Your task to perform on an android device: turn pop-ups on in chrome Image 0: 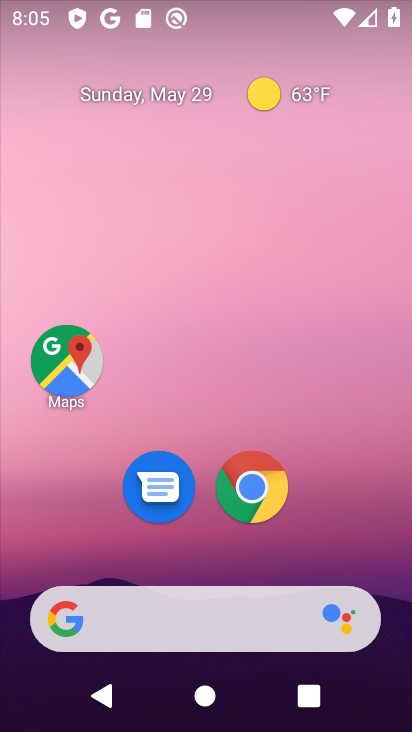
Step 0: click (251, 491)
Your task to perform on an android device: turn pop-ups on in chrome Image 1: 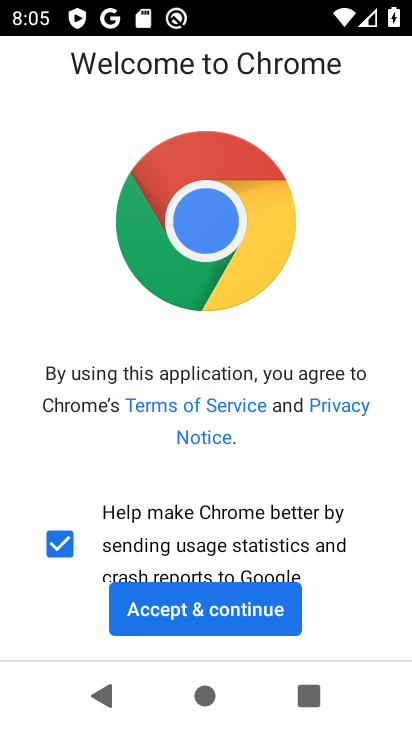
Step 1: click (207, 612)
Your task to perform on an android device: turn pop-ups on in chrome Image 2: 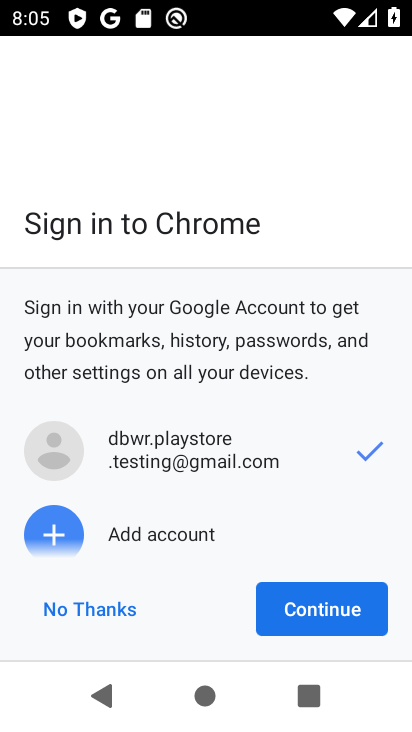
Step 2: click (316, 606)
Your task to perform on an android device: turn pop-ups on in chrome Image 3: 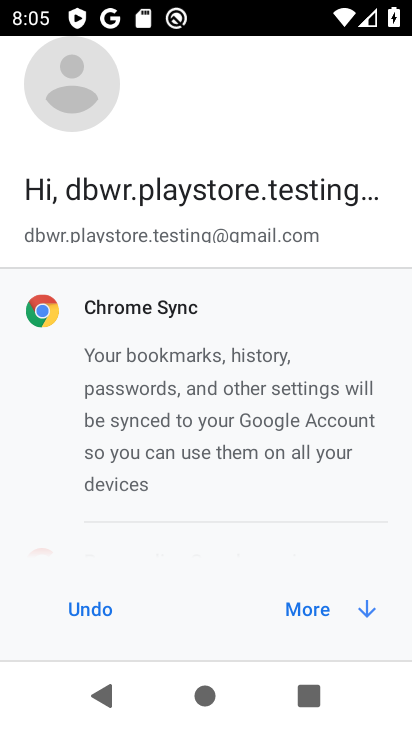
Step 3: click (316, 606)
Your task to perform on an android device: turn pop-ups on in chrome Image 4: 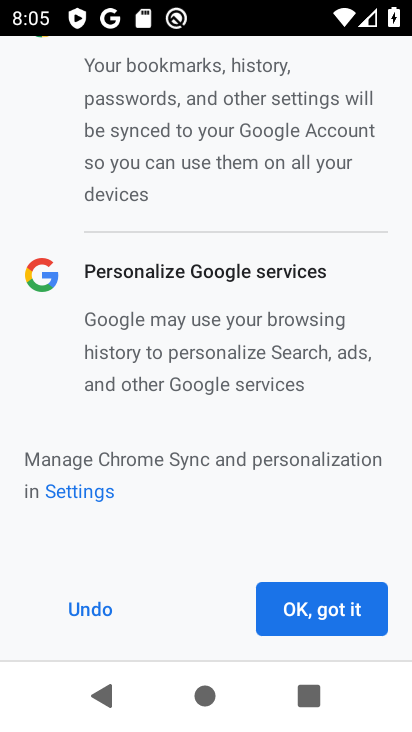
Step 4: click (316, 606)
Your task to perform on an android device: turn pop-ups on in chrome Image 5: 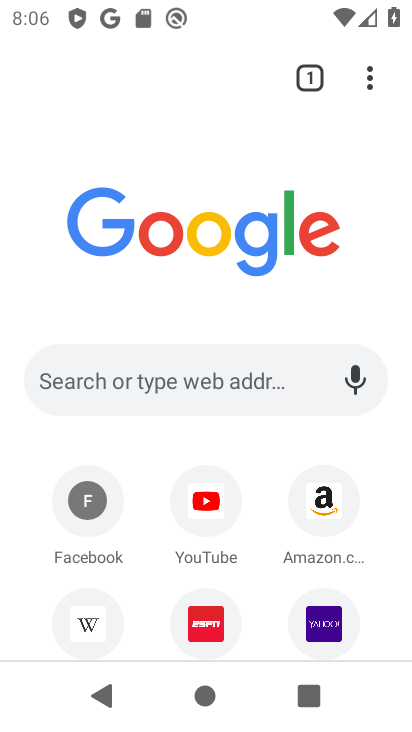
Step 5: click (372, 77)
Your task to perform on an android device: turn pop-ups on in chrome Image 6: 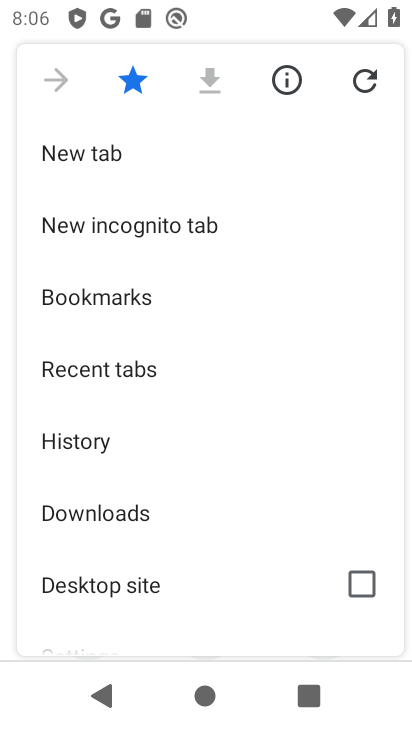
Step 6: drag from (150, 536) to (205, 431)
Your task to perform on an android device: turn pop-ups on in chrome Image 7: 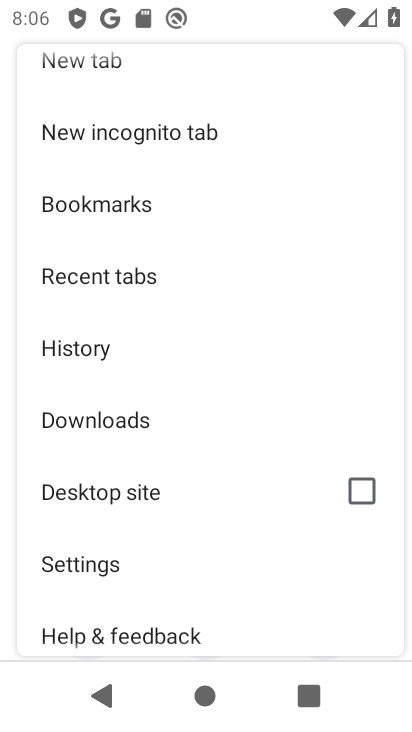
Step 7: click (95, 565)
Your task to perform on an android device: turn pop-ups on in chrome Image 8: 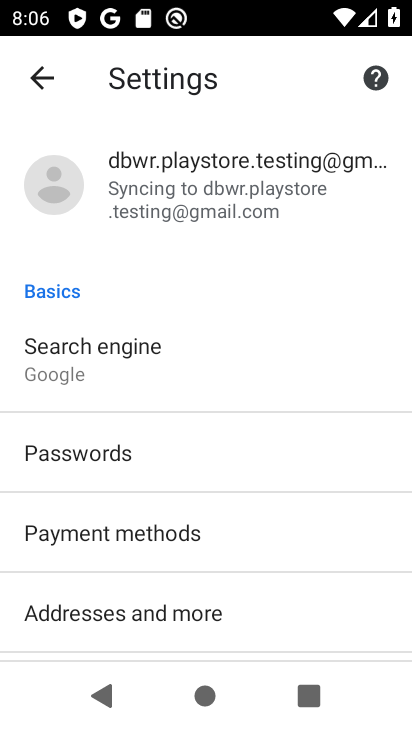
Step 8: drag from (126, 548) to (159, 454)
Your task to perform on an android device: turn pop-ups on in chrome Image 9: 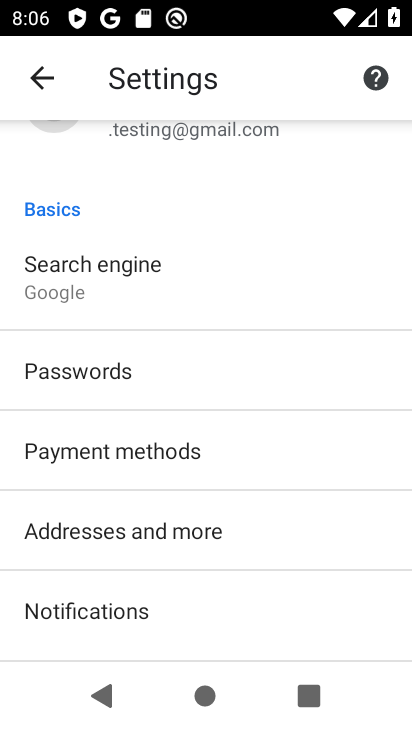
Step 9: drag from (152, 554) to (201, 468)
Your task to perform on an android device: turn pop-ups on in chrome Image 10: 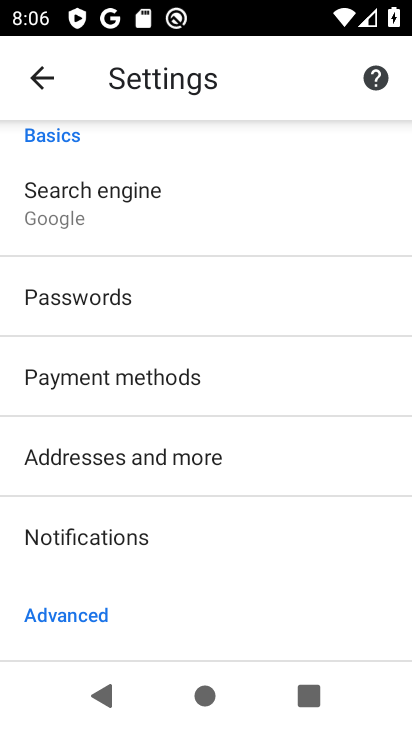
Step 10: drag from (125, 577) to (204, 451)
Your task to perform on an android device: turn pop-ups on in chrome Image 11: 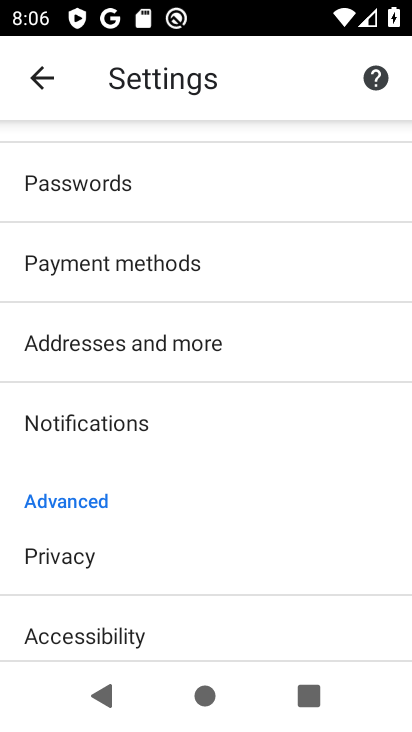
Step 11: drag from (130, 581) to (206, 484)
Your task to perform on an android device: turn pop-ups on in chrome Image 12: 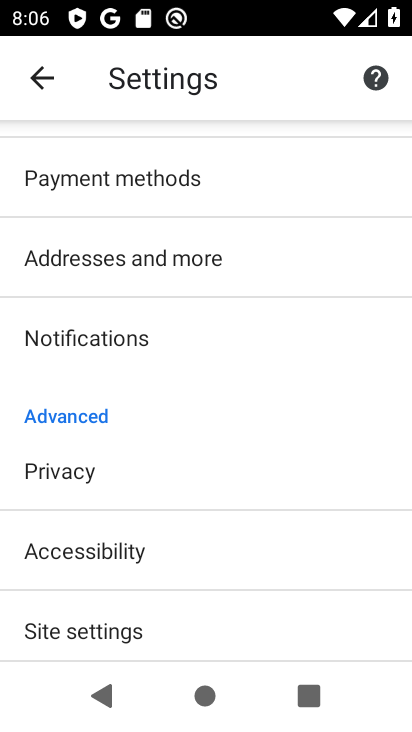
Step 12: drag from (110, 613) to (202, 521)
Your task to perform on an android device: turn pop-ups on in chrome Image 13: 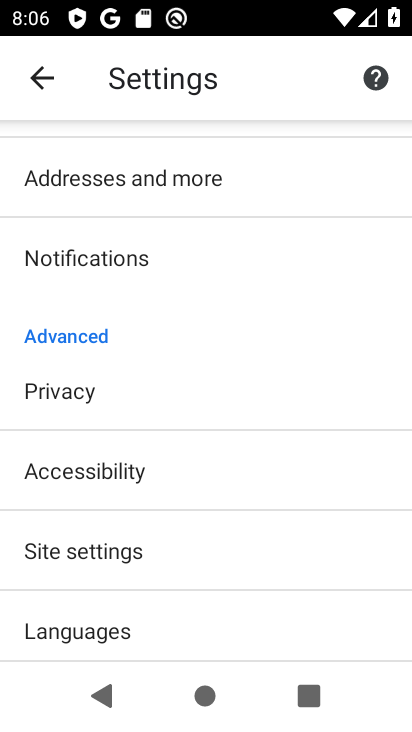
Step 13: click (118, 552)
Your task to perform on an android device: turn pop-ups on in chrome Image 14: 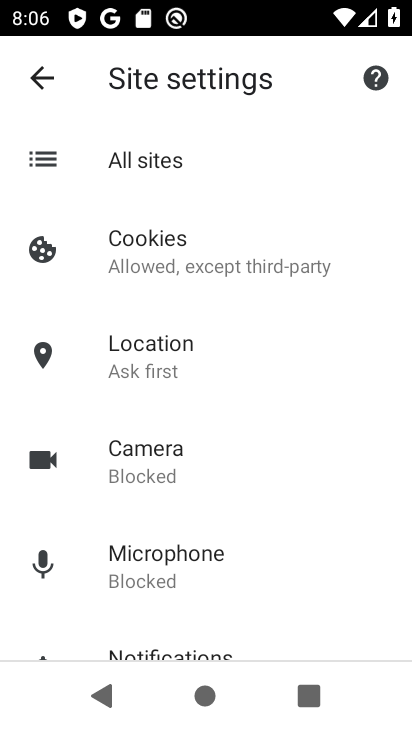
Step 14: drag from (168, 402) to (245, 285)
Your task to perform on an android device: turn pop-ups on in chrome Image 15: 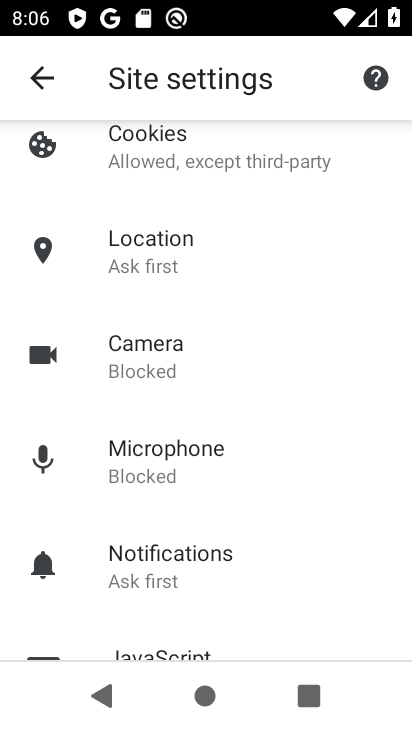
Step 15: drag from (144, 423) to (202, 326)
Your task to perform on an android device: turn pop-ups on in chrome Image 16: 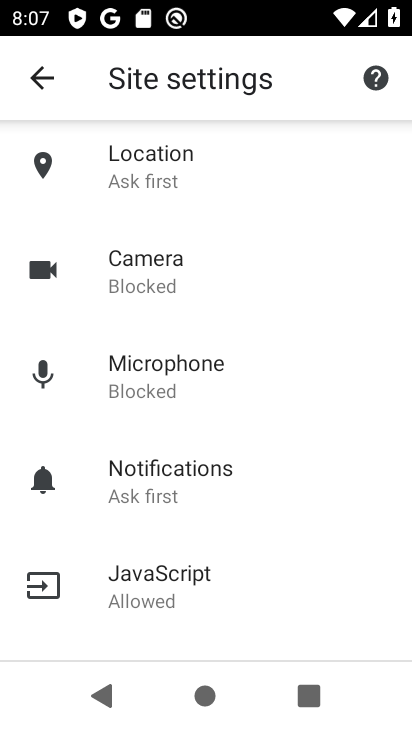
Step 16: drag from (140, 429) to (199, 330)
Your task to perform on an android device: turn pop-ups on in chrome Image 17: 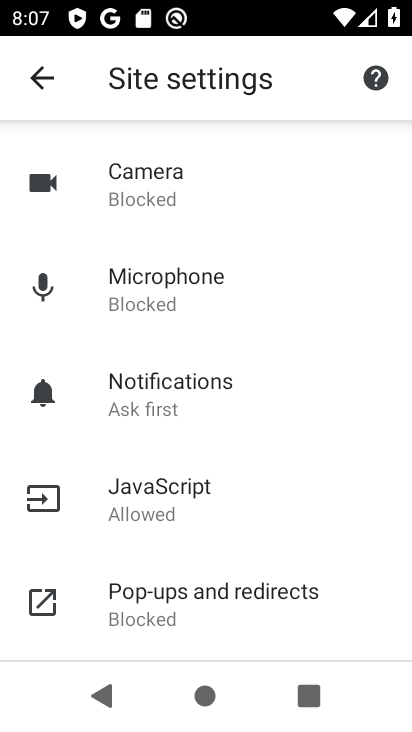
Step 17: drag from (161, 419) to (203, 339)
Your task to perform on an android device: turn pop-ups on in chrome Image 18: 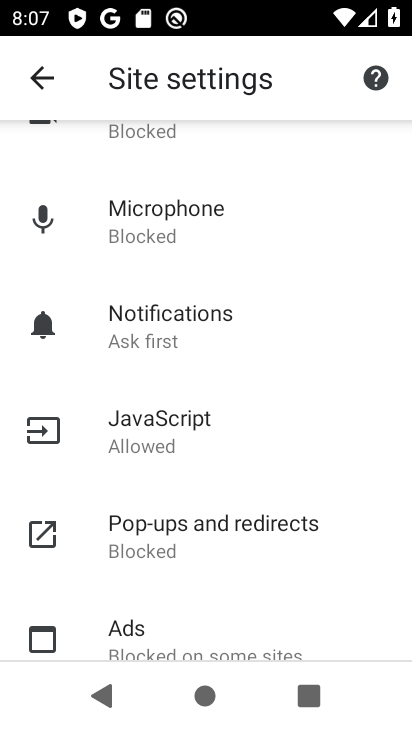
Step 18: drag from (132, 486) to (197, 360)
Your task to perform on an android device: turn pop-ups on in chrome Image 19: 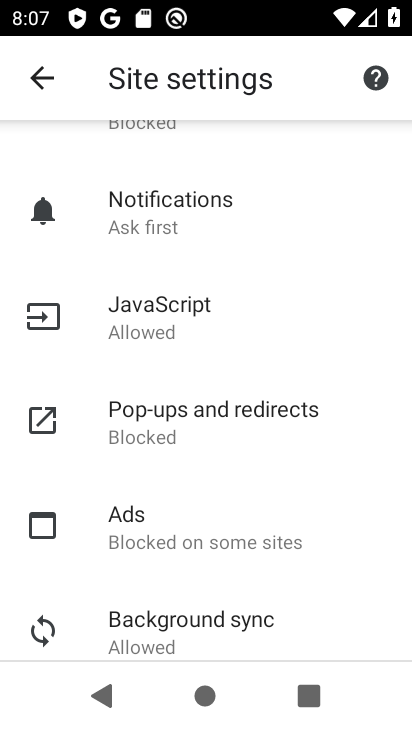
Step 19: drag from (158, 490) to (218, 371)
Your task to perform on an android device: turn pop-ups on in chrome Image 20: 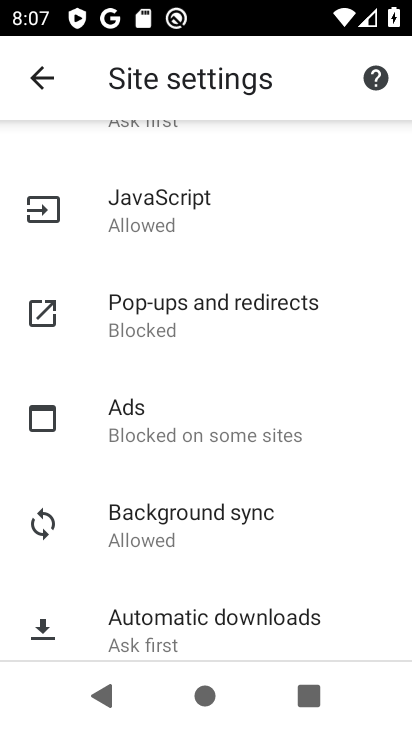
Step 20: click (213, 317)
Your task to perform on an android device: turn pop-ups on in chrome Image 21: 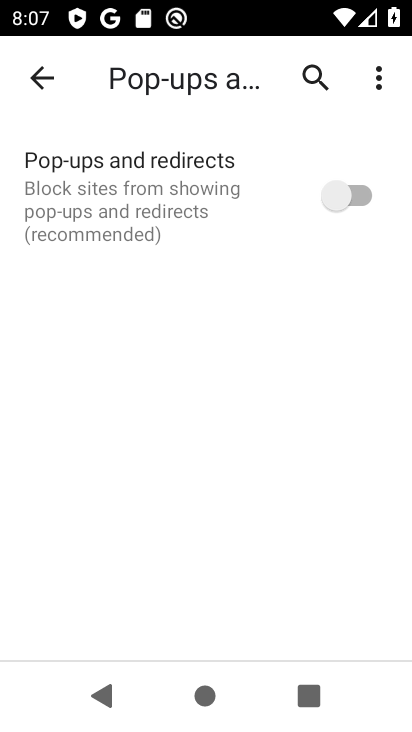
Step 21: click (361, 196)
Your task to perform on an android device: turn pop-ups on in chrome Image 22: 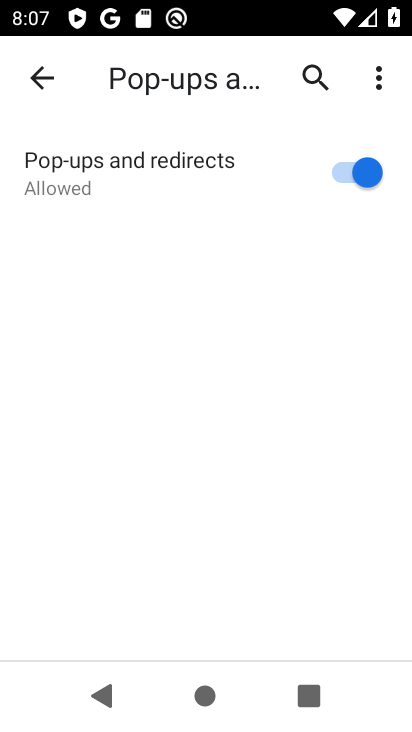
Step 22: task complete